Your task to perform on an android device: turn off picture-in-picture Image 0: 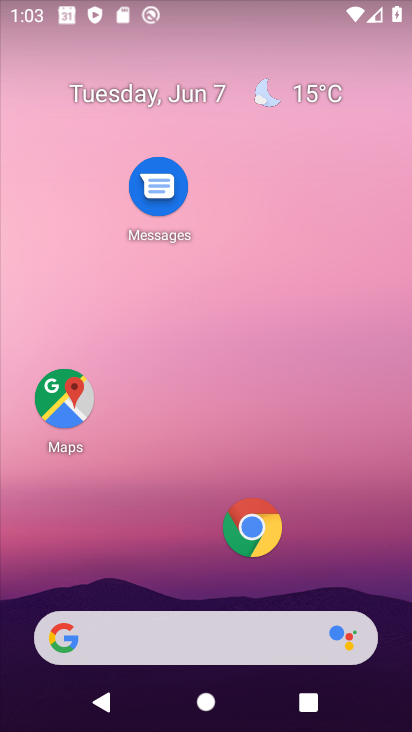
Step 0: click (259, 534)
Your task to perform on an android device: turn off picture-in-picture Image 1: 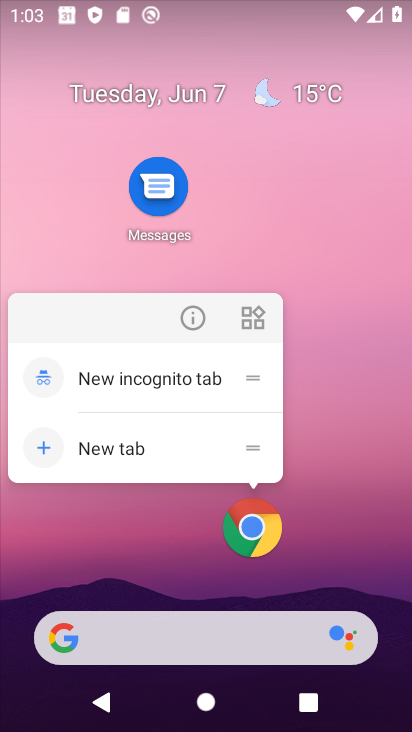
Step 1: click (197, 325)
Your task to perform on an android device: turn off picture-in-picture Image 2: 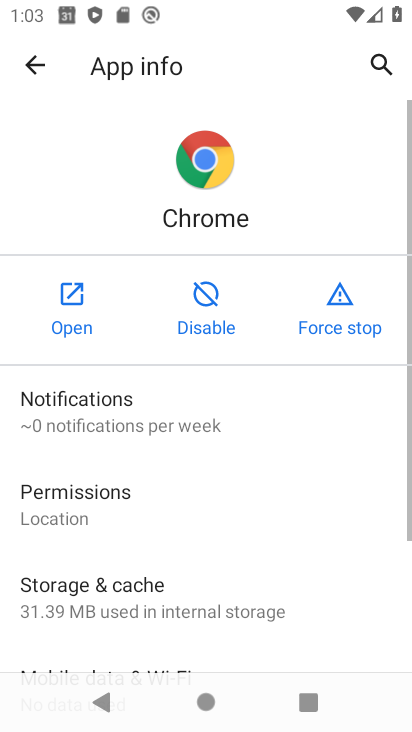
Step 2: drag from (174, 653) to (191, 370)
Your task to perform on an android device: turn off picture-in-picture Image 3: 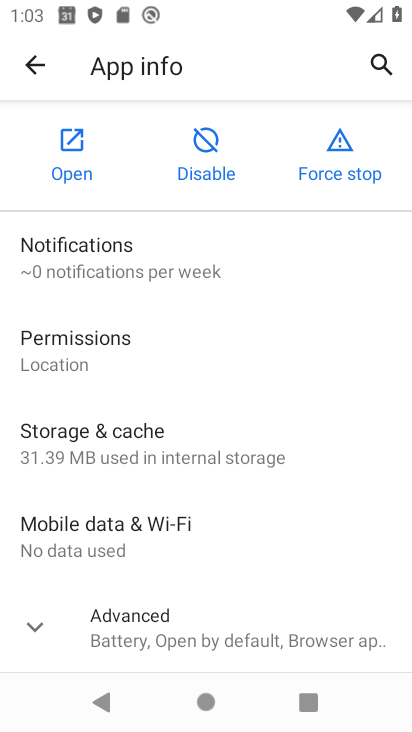
Step 3: click (154, 636)
Your task to perform on an android device: turn off picture-in-picture Image 4: 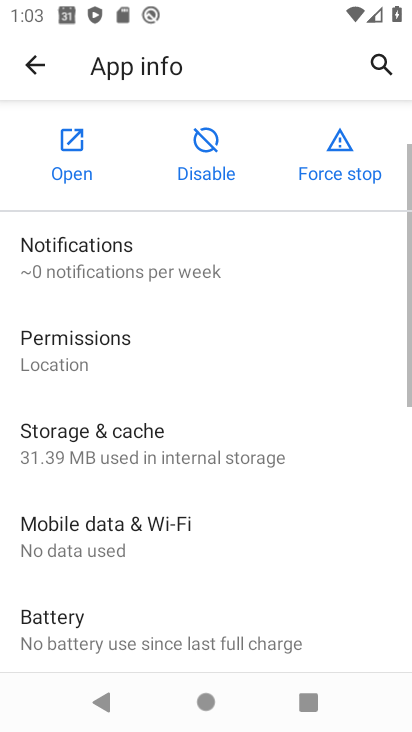
Step 4: drag from (187, 650) to (223, 398)
Your task to perform on an android device: turn off picture-in-picture Image 5: 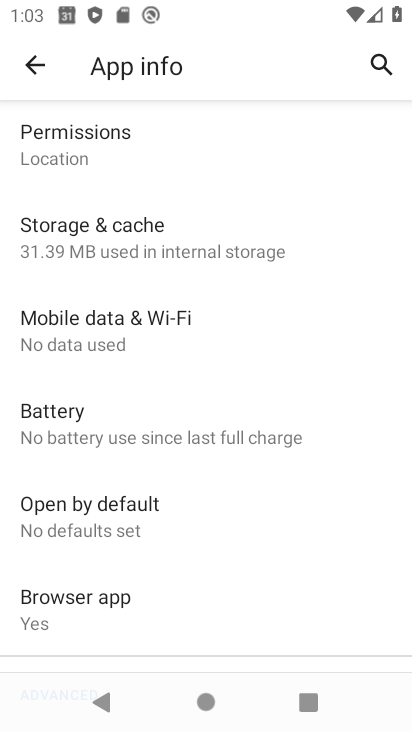
Step 5: drag from (218, 623) to (254, 363)
Your task to perform on an android device: turn off picture-in-picture Image 6: 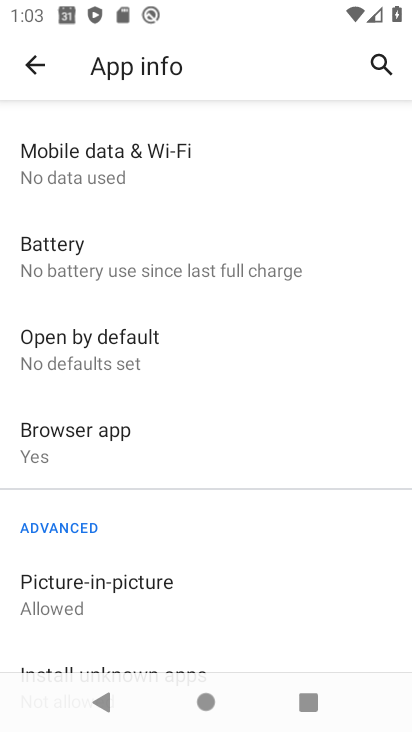
Step 6: click (168, 621)
Your task to perform on an android device: turn off picture-in-picture Image 7: 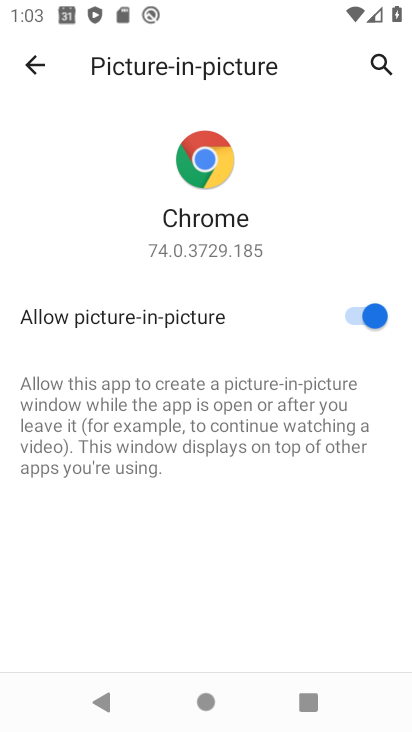
Step 7: click (347, 313)
Your task to perform on an android device: turn off picture-in-picture Image 8: 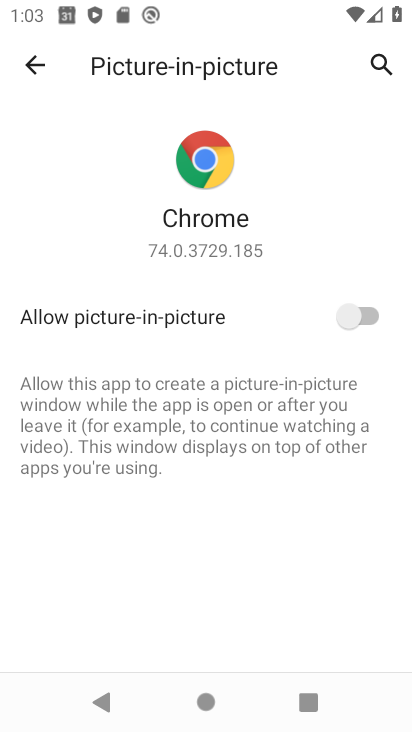
Step 8: task complete